Your task to perform on an android device: delete browsing data in the chrome app Image 0: 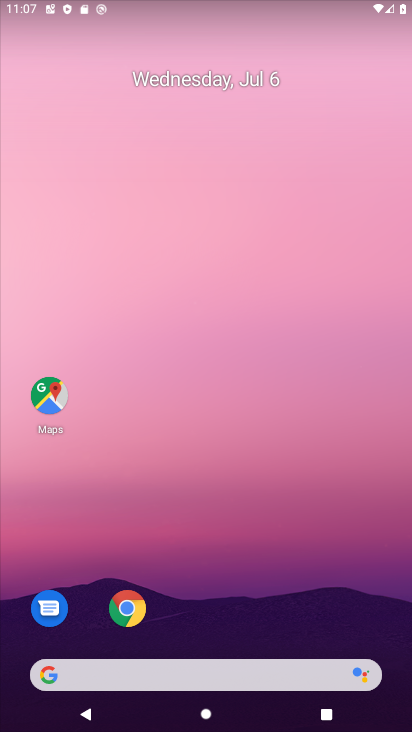
Step 0: click (239, 171)
Your task to perform on an android device: delete browsing data in the chrome app Image 1: 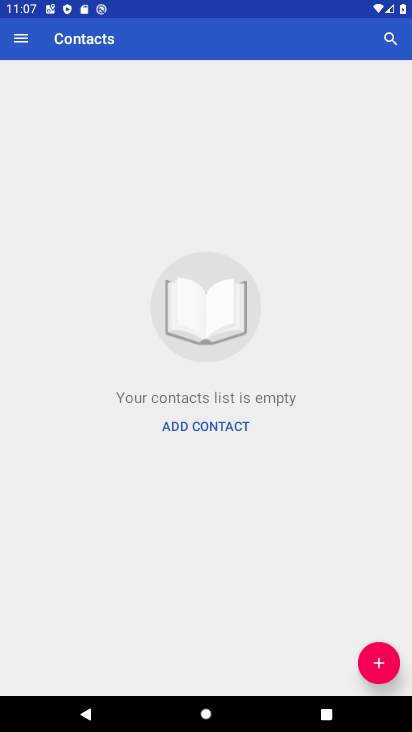
Step 1: press home button
Your task to perform on an android device: delete browsing data in the chrome app Image 2: 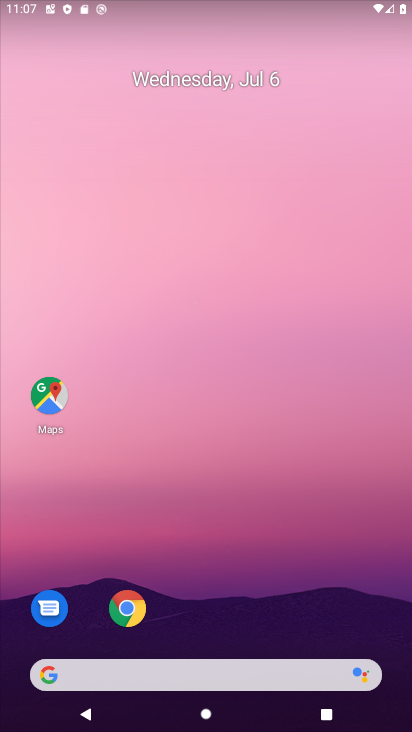
Step 2: click (119, 594)
Your task to perform on an android device: delete browsing data in the chrome app Image 3: 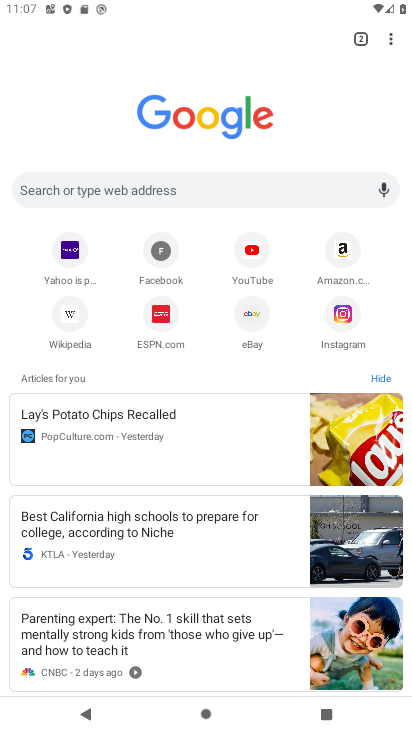
Step 3: click (393, 40)
Your task to perform on an android device: delete browsing data in the chrome app Image 4: 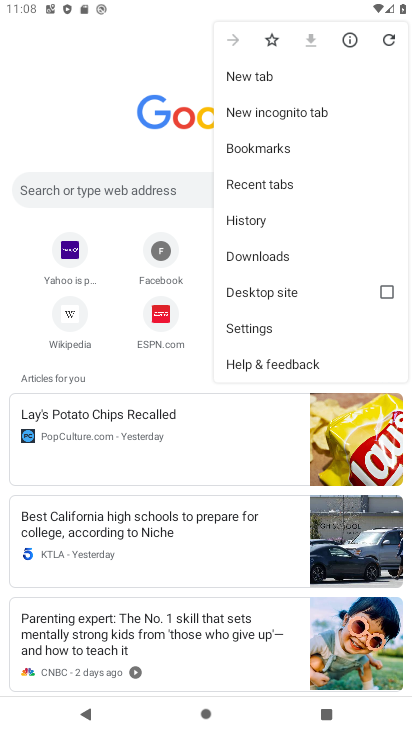
Step 4: click (256, 219)
Your task to perform on an android device: delete browsing data in the chrome app Image 5: 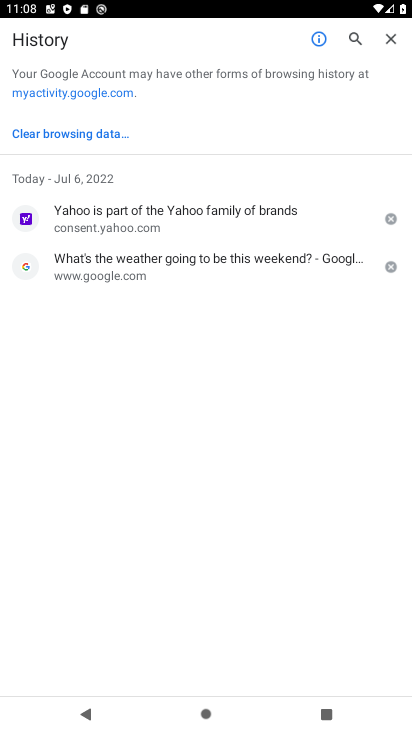
Step 5: click (72, 137)
Your task to perform on an android device: delete browsing data in the chrome app Image 6: 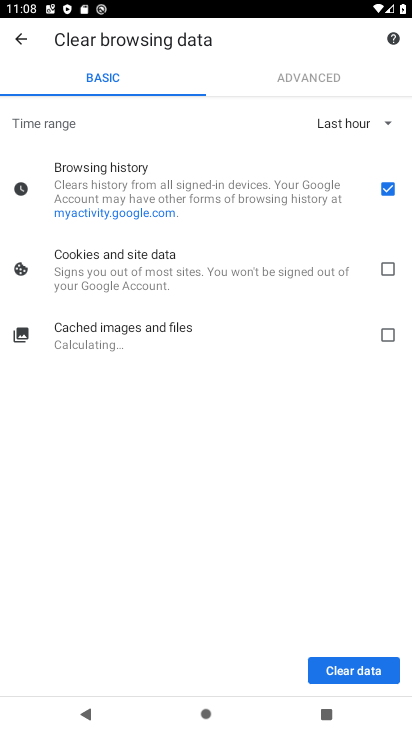
Step 6: click (324, 127)
Your task to perform on an android device: delete browsing data in the chrome app Image 7: 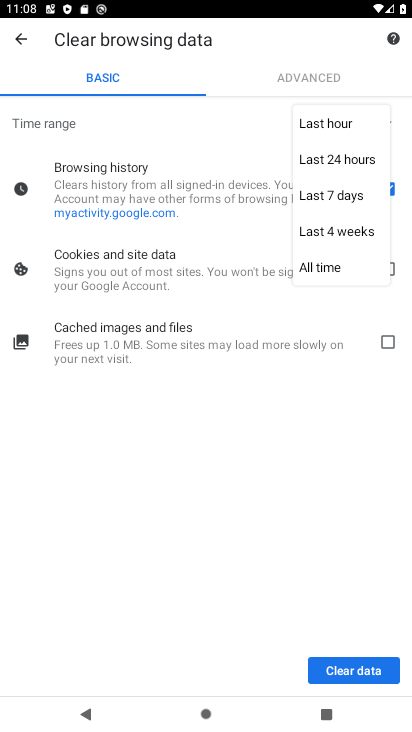
Step 7: click (338, 265)
Your task to perform on an android device: delete browsing data in the chrome app Image 8: 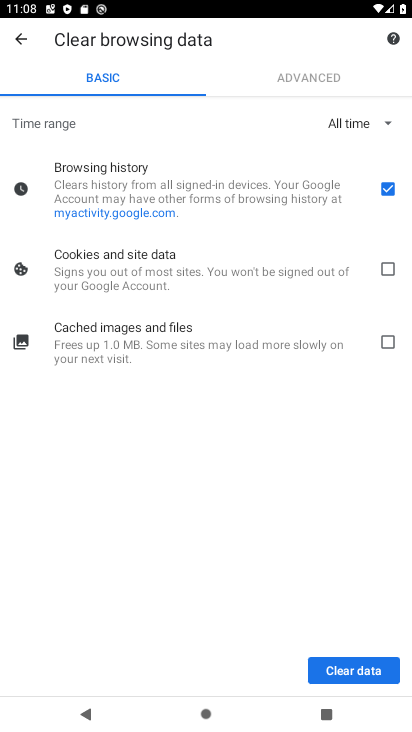
Step 8: click (391, 338)
Your task to perform on an android device: delete browsing data in the chrome app Image 9: 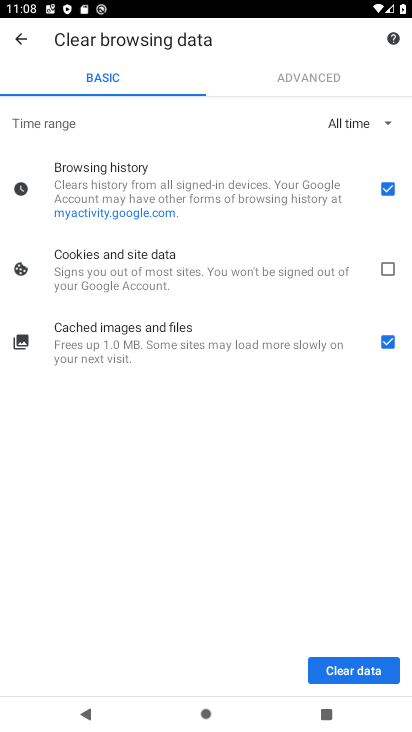
Step 9: click (390, 264)
Your task to perform on an android device: delete browsing data in the chrome app Image 10: 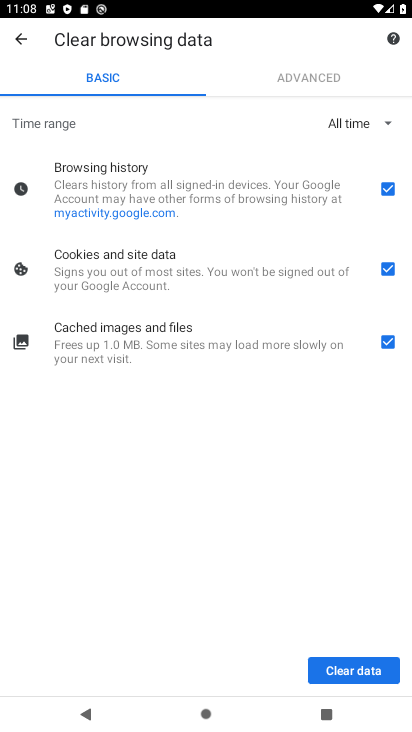
Step 10: click (354, 680)
Your task to perform on an android device: delete browsing data in the chrome app Image 11: 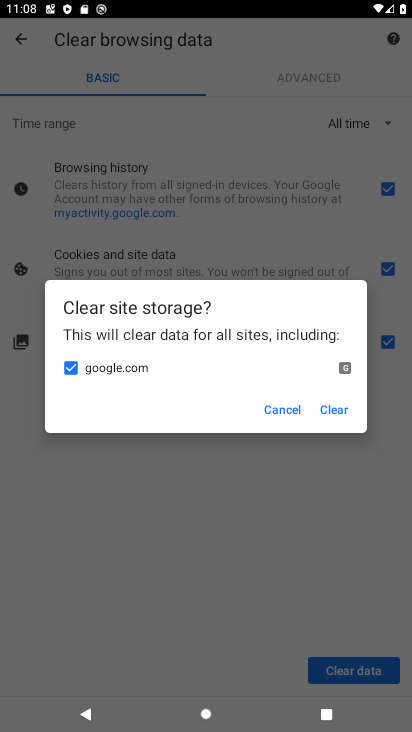
Step 11: click (331, 413)
Your task to perform on an android device: delete browsing data in the chrome app Image 12: 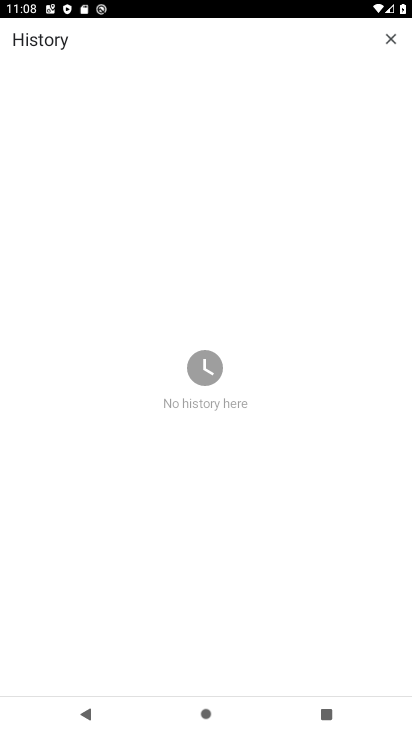
Step 12: task complete